Your task to perform on an android device: Open calendar and show me the second week of next month Image 0: 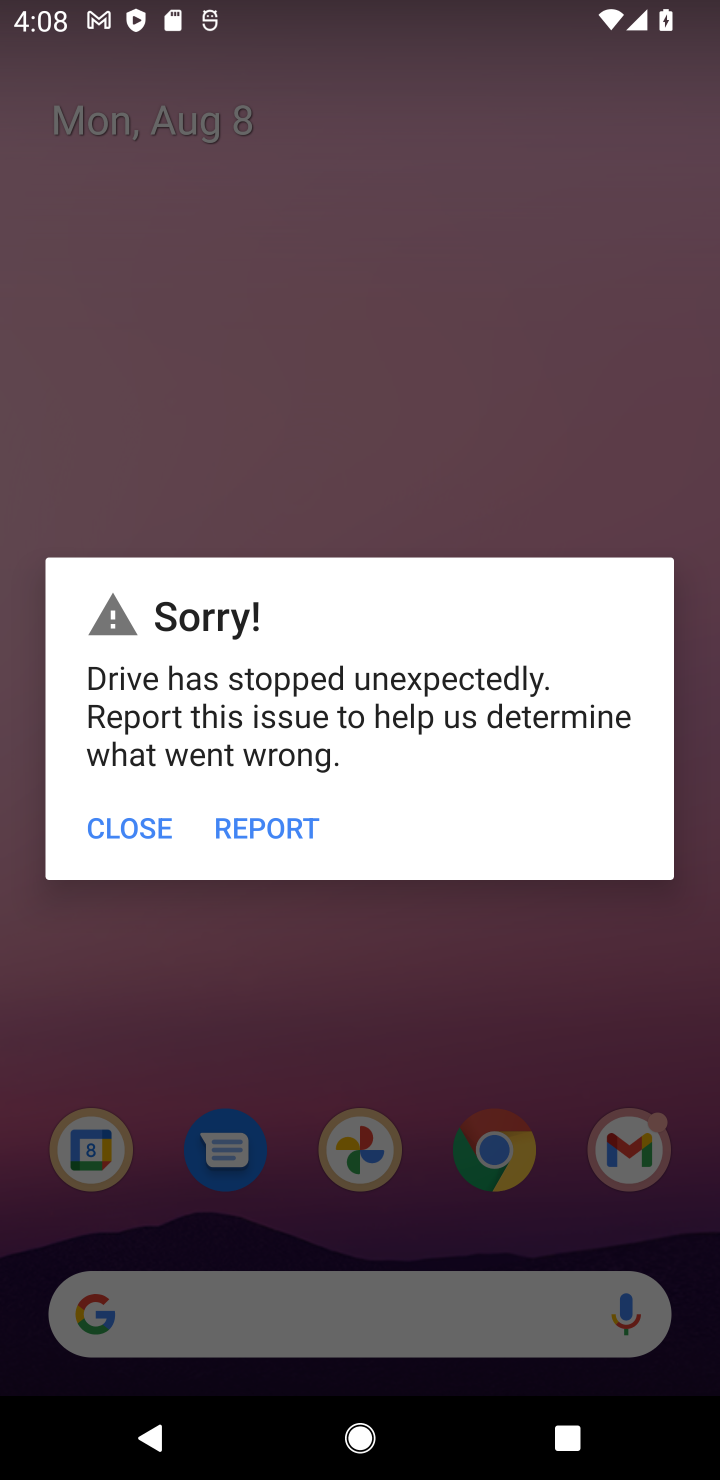
Step 0: click (64, 854)
Your task to perform on an android device: Open calendar and show me the second week of next month Image 1: 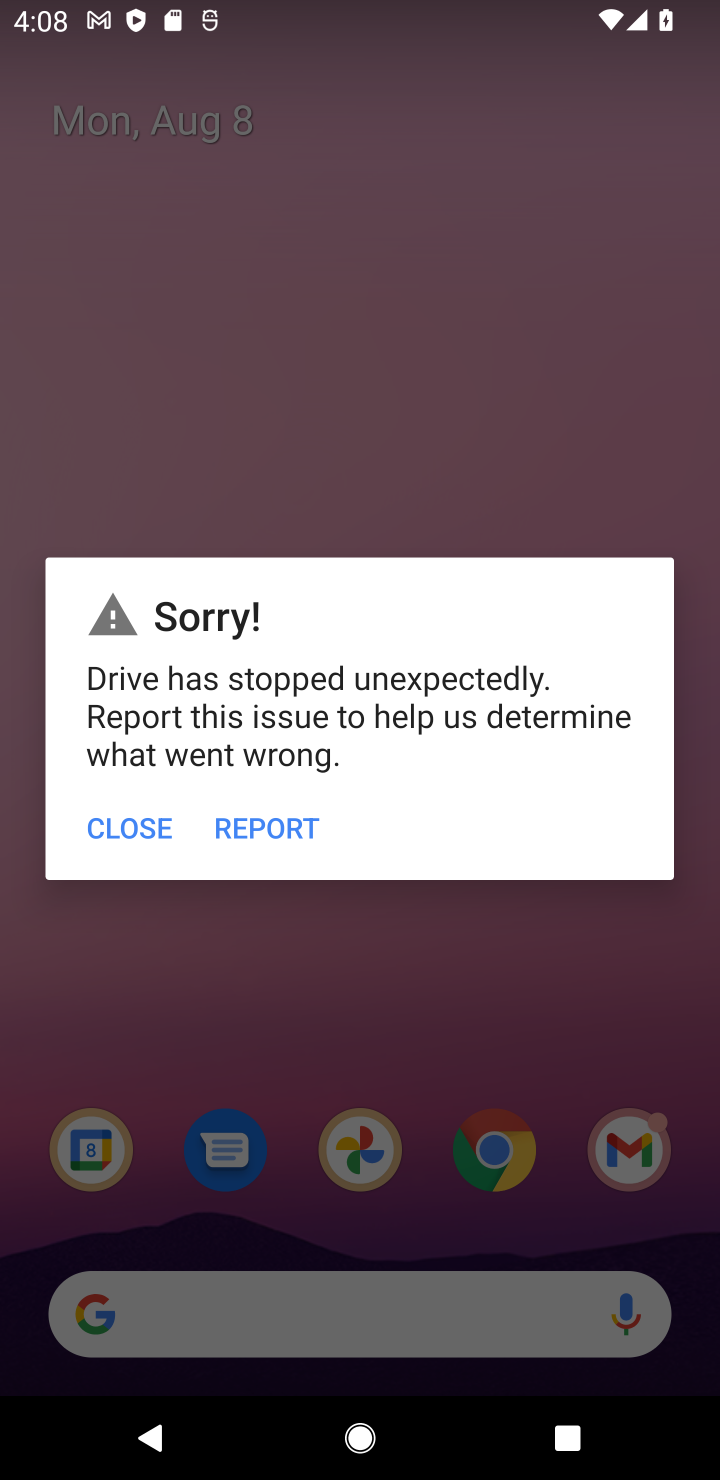
Step 1: click (164, 827)
Your task to perform on an android device: Open calendar and show me the second week of next month Image 2: 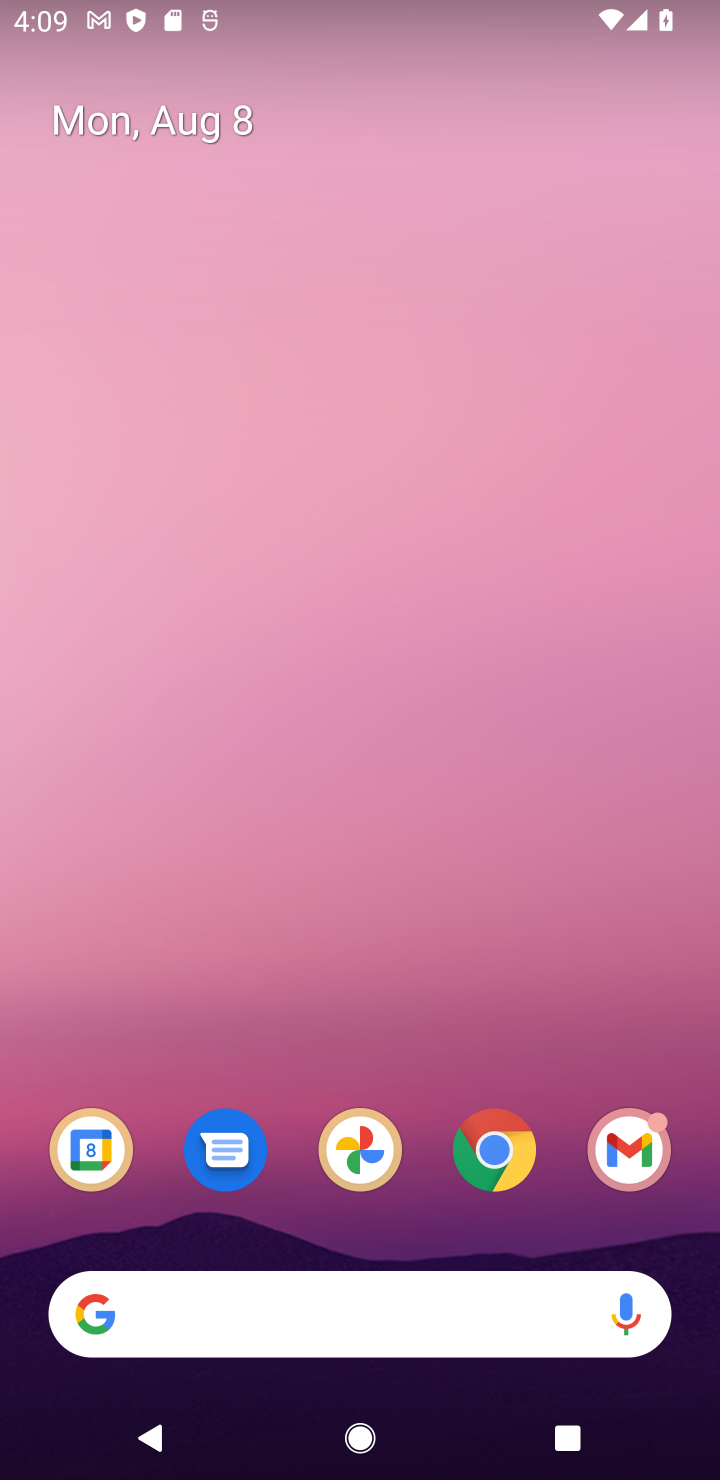
Step 2: drag from (412, 1240) to (389, 136)
Your task to perform on an android device: Open calendar and show me the second week of next month Image 3: 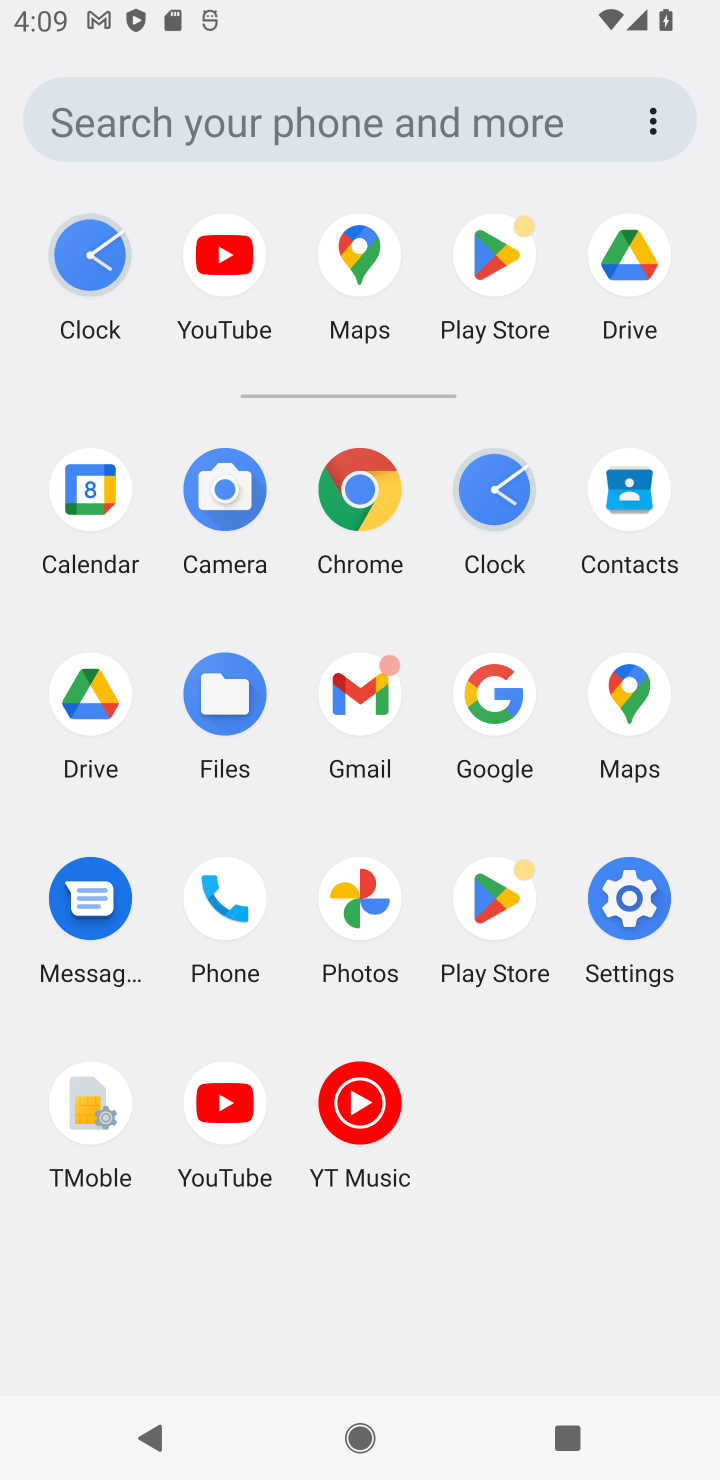
Step 3: click (63, 490)
Your task to perform on an android device: Open calendar and show me the second week of next month Image 4: 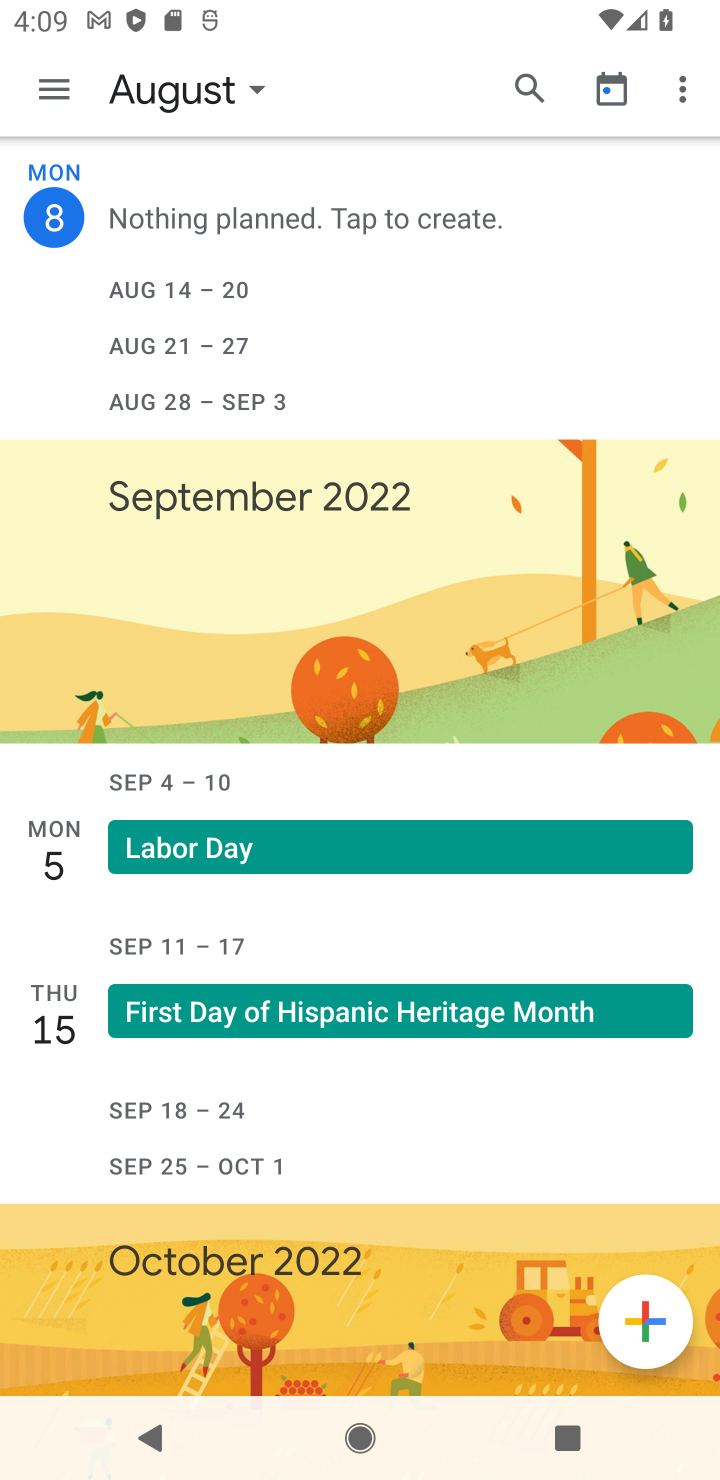
Step 4: task complete